Your task to perform on an android device: add a contact in the contacts app Image 0: 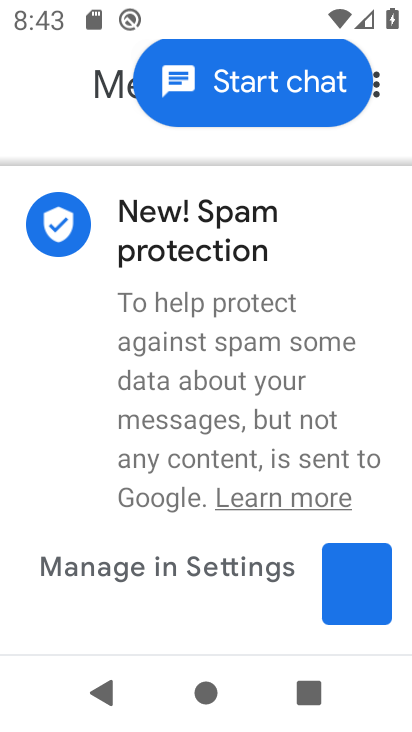
Step 0: press home button
Your task to perform on an android device: add a contact in the contacts app Image 1: 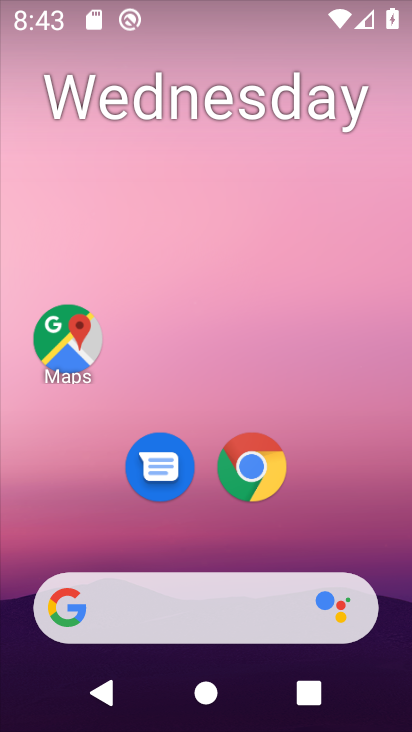
Step 1: drag from (320, 495) to (296, 8)
Your task to perform on an android device: add a contact in the contacts app Image 2: 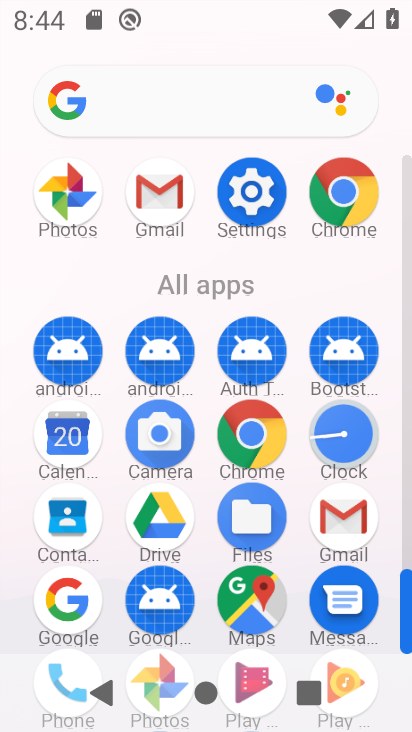
Step 2: drag from (377, 511) to (367, 184)
Your task to perform on an android device: add a contact in the contacts app Image 3: 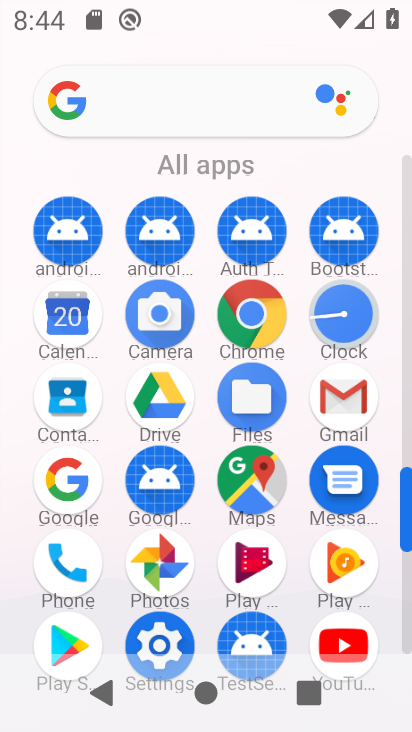
Step 3: click (49, 415)
Your task to perform on an android device: add a contact in the contacts app Image 4: 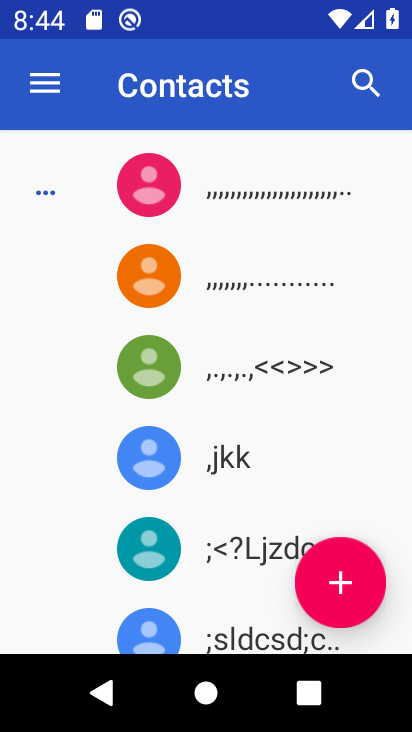
Step 4: click (349, 581)
Your task to perform on an android device: add a contact in the contacts app Image 5: 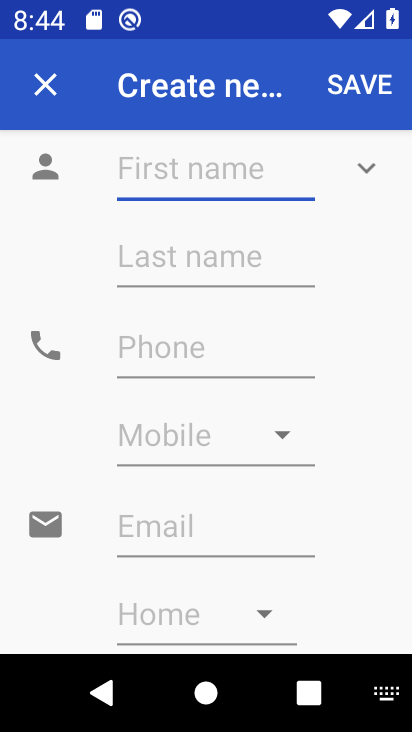
Step 5: type "piyush"
Your task to perform on an android device: add a contact in the contacts app Image 6: 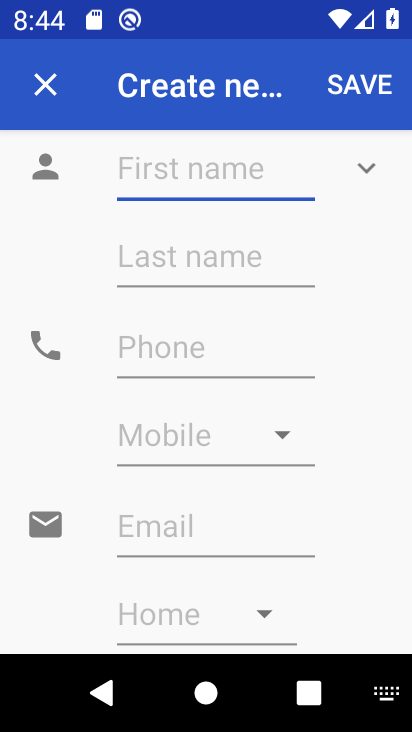
Step 6: click (242, 360)
Your task to perform on an android device: add a contact in the contacts app Image 7: 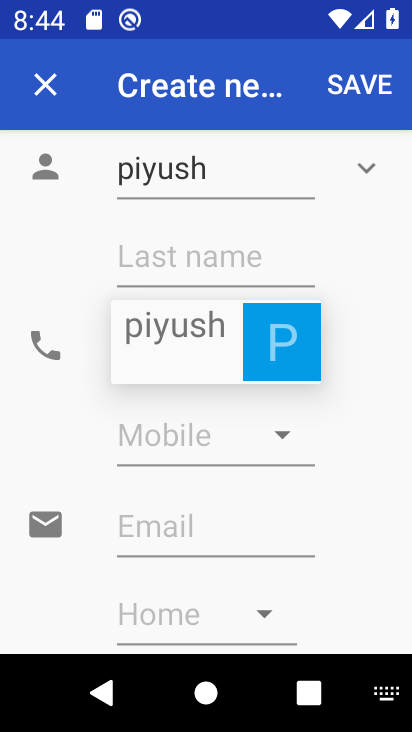
Step 7: type "765434567"
Your task to perform on an android device: add a contact in the contacts app Image 8: 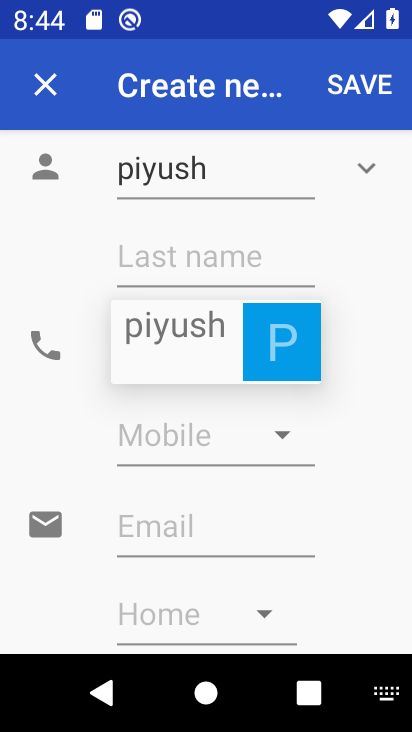
Step 8: click (350, 470)
Your task to perform on an android device: add a contact in the contacts app Image 9: 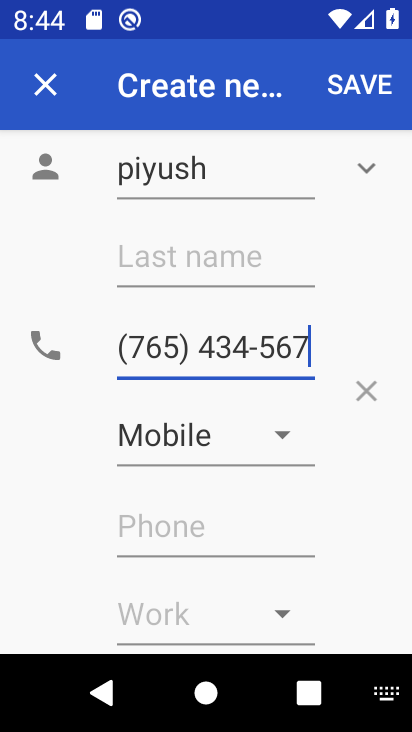
Step 9: click (359, 83)
Your task to perform on an android device: add a contact in the contacts app Image 10: 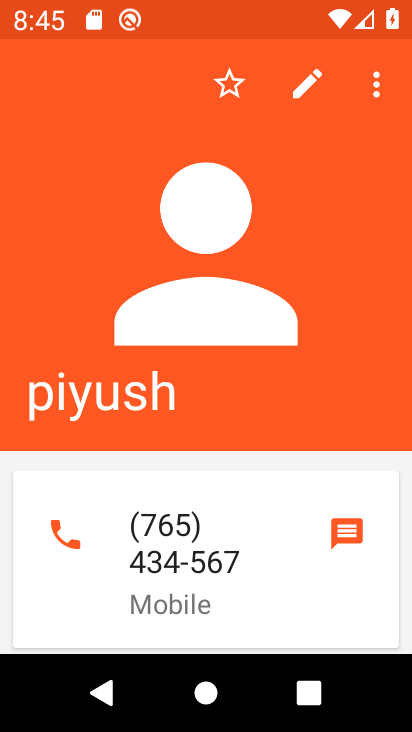
Step 10: task complete